Your task to perform on an android device: open app "Google Chrome" (install if not already installed) Image 0: 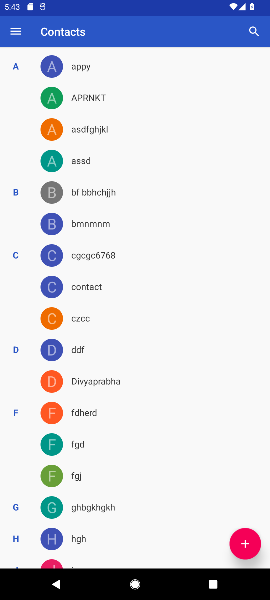
Step 0: press home button
Your task to perform on an android device: open app "Google Chrome" (install if not already installed) Image 1: 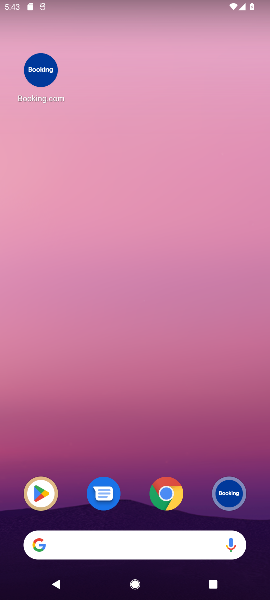
Step 1: click (177, 486)
Your task to perform on an android device: open app "Google Chrome" (install if not already installed) Image 2: 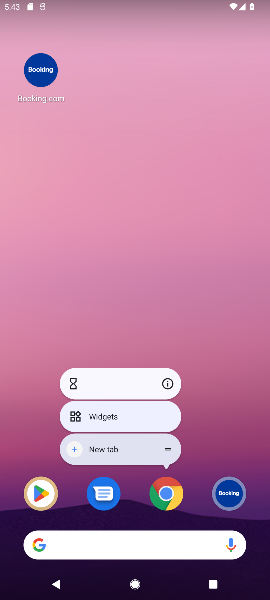
Step 2: click (191, 496)
Your task to perform on an android device: open app "Google Chrome" (install if not already installed) Image 3: 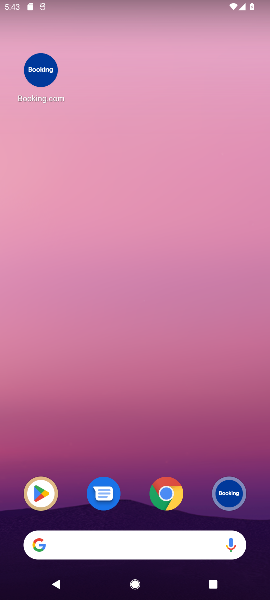
Step 3: click (171, 501)
Your task to perform on an android device: open app "Google Chrome" (install if not already installed) Image 4: 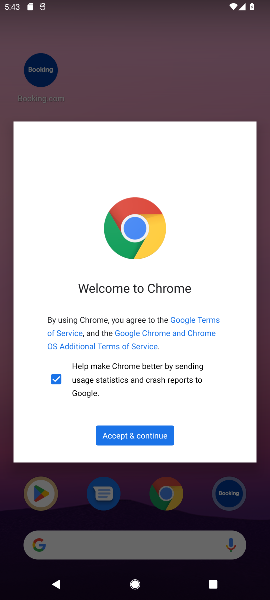
Step 4: click (108, 438)
Your task to perform on an android device: open app "Google Chrome" (install if not already installed) Image 5: 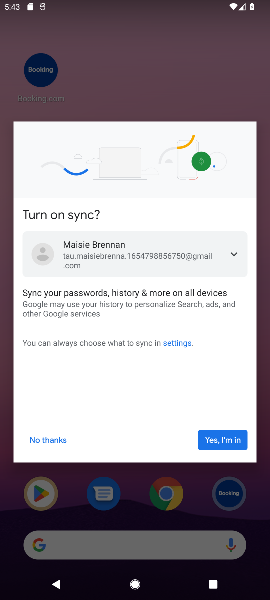
Step 5: click (228, 446)
Your task to perform on an android device: open app "Google Chrome" (install if not already installed) Image 6: 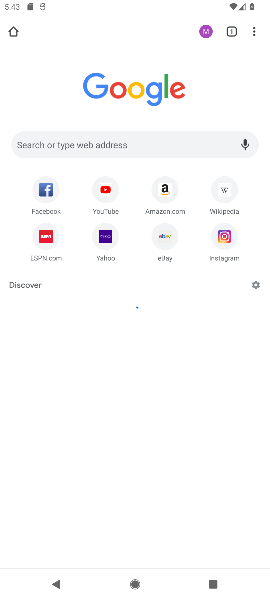
Step 6: task complete